Your task to perform on an android device: see tabs open on other devices in the chrome app Image 0: 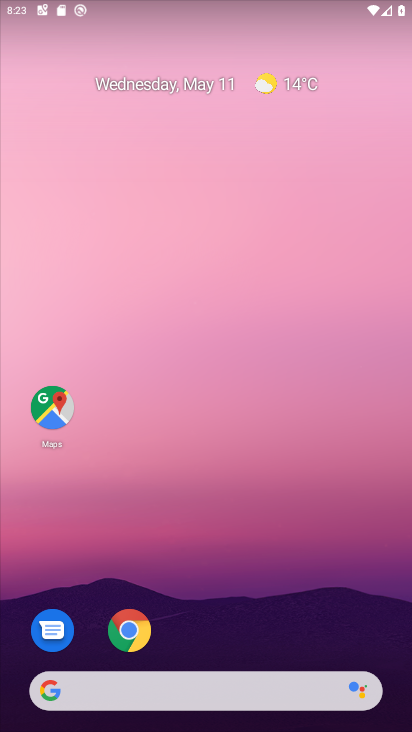
Step 0: click (132, 631)
Your task to perform on an android device: see tabs open on other devices in the chrome app Image 1: 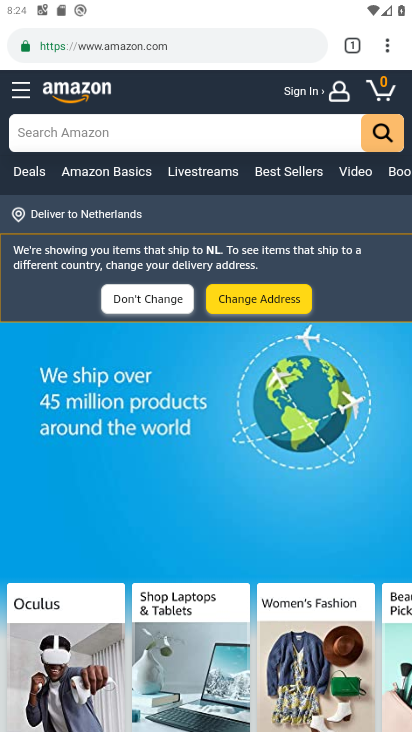
Step 1: click (350, 50)
Your task to perform on an android device: see tabs open on other devices in the chrome app Image 2: 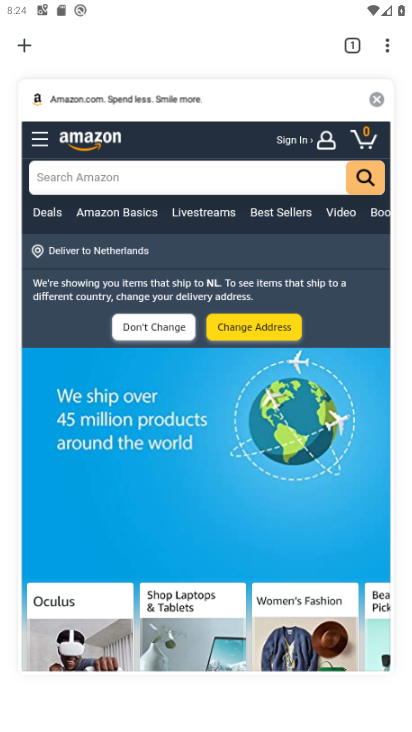
Step 2: click (375, 97)
Your task to perform on an android device: see tabs open on other devices in the chrome app Image 3: 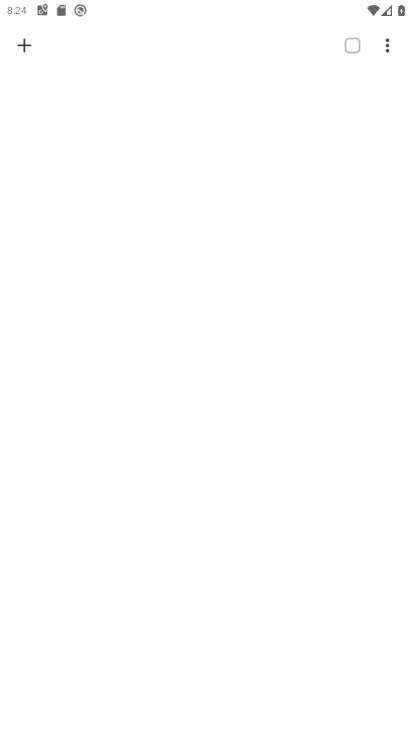
Step 3: click (30, 49)
Your task to perform on an android device: see tabs open on other devices in the chrome app Image 4: 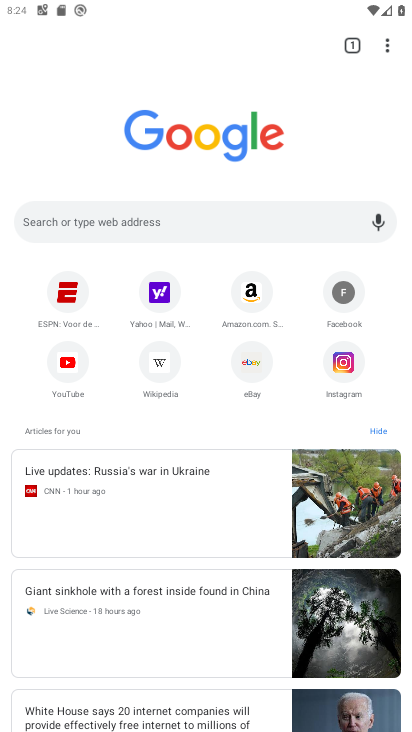
Step 4: task complete